Your task to perform on an android device: Go to battery settings Image 0: 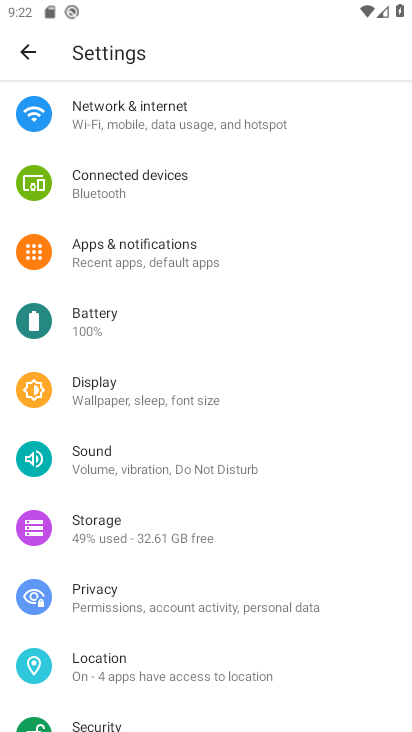
Step 0: drag from (362, 655) to (380, 416)
Your task to perform on an android device: Go to battery settings Image 1: 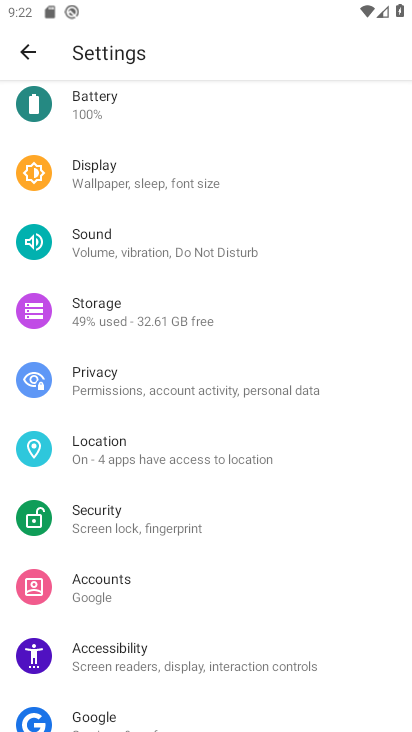
Step 1: drag from (325, 590) to (338, 448)
Your task to perform on an android device: Go to battery settings Image 2: 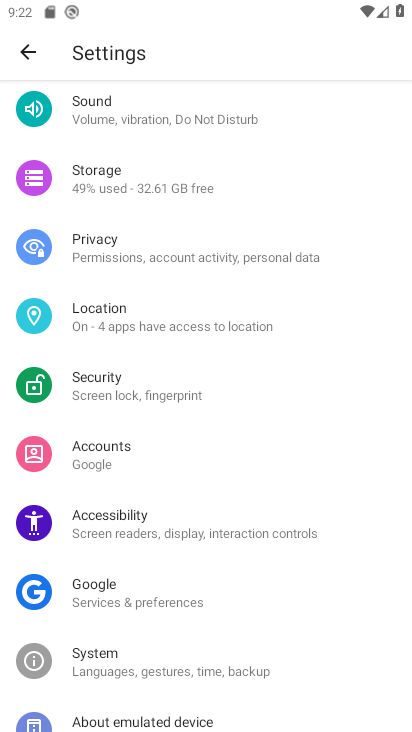
Step 2: drag from (362, 590) to (354, 443)
Your task to perform on an android device: Go to battery settings Image 3: 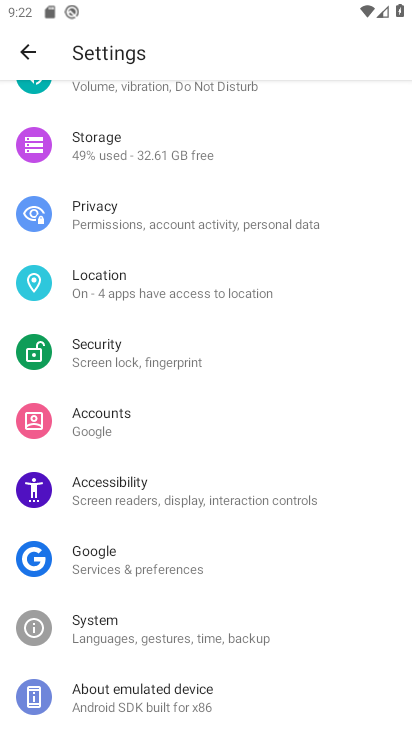
Step 3: drag from (351, 592) to (338, 450)
Your task to perform on an android device: Go to battery settings Image 4: 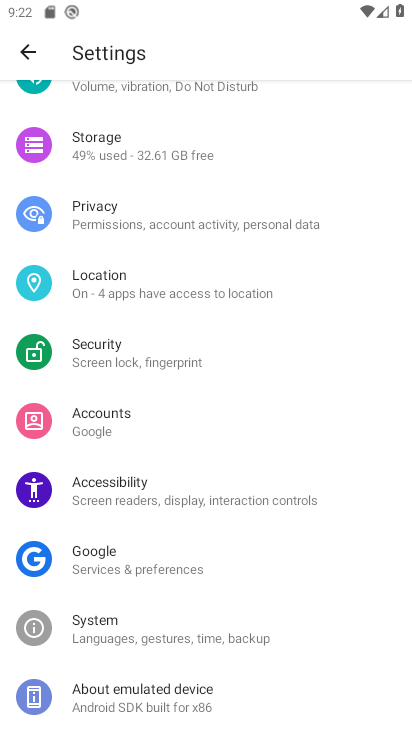
Step 4: drag from (345, 345) to (356, 475)
Your task to perform on an android device: Go to battery settings Image 5: 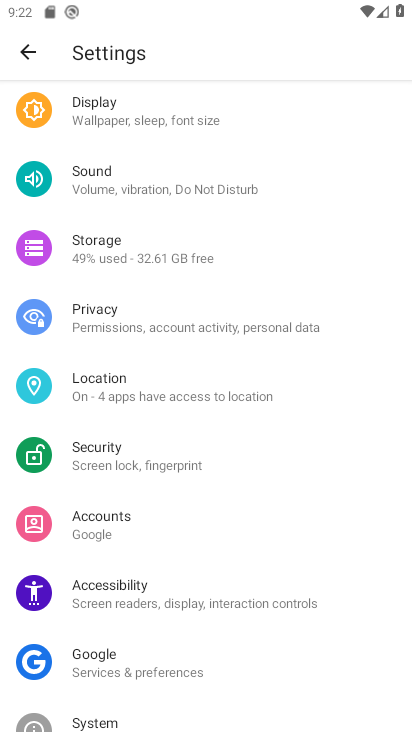
Step 5: drag from (354, 301) to (357, 472)
Your task to perform on an android device: Go to battery settings Image 6: 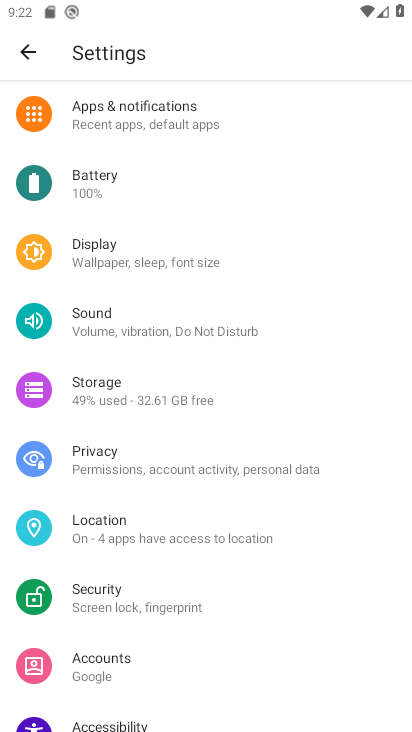
Step 6: drag from (343, 296) to (350, 450)
Your task to perform on an android device: Go to battery settings Image 7: 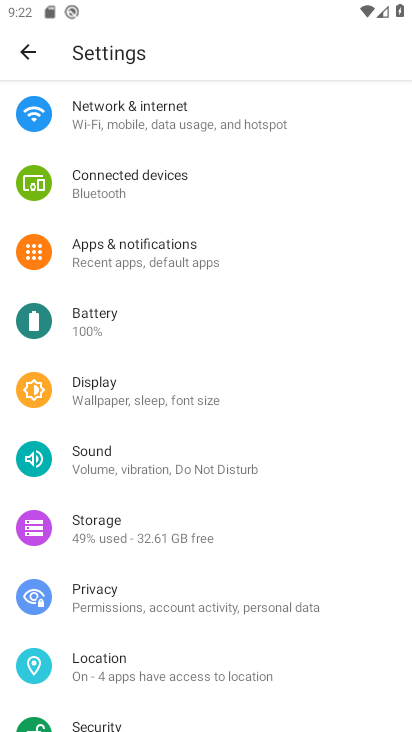
Step 7: drag from (346, 303) to (338, 466)
Your task to perform on an android device: Go to battery settings Image 8: 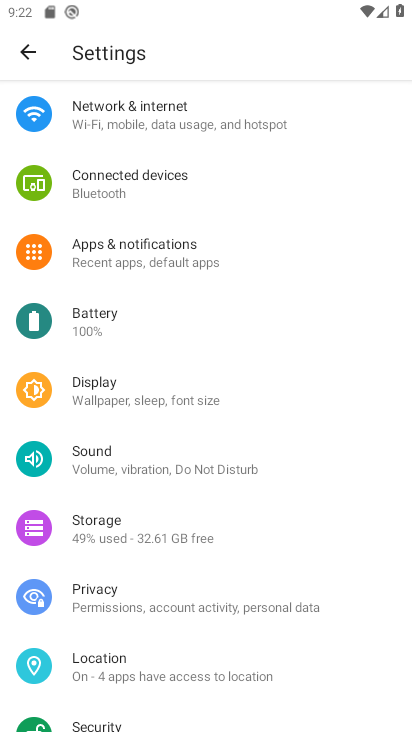
Step 8: click (124, 320)
Your task to perform on an android device: Go to battery settings Image 9: 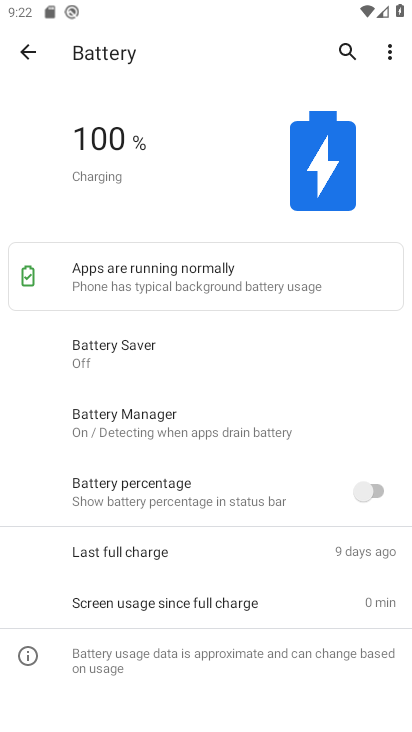
Step 9: task complete